Your task to perform on an android device: Clear all items from cart on newegg. Add logitech g pro to the cart on newegg Image 0: 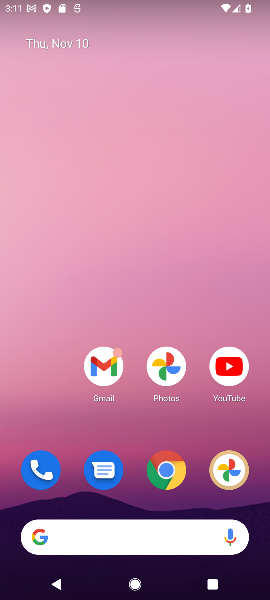
Step 0: click (166, 476)
Your task to perform on an android device: Clear all items from cart on newegg. Add logitech g pro to the cart on newegg Image 1: 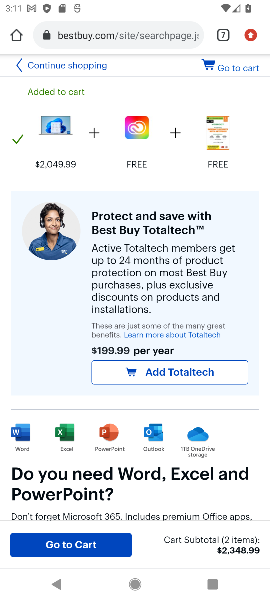
Step 1: click (225, 32)
Your task to perform on an android device: Clear all items from cart on newegg. Add logitech g pro to the cart on newegg Image 2: 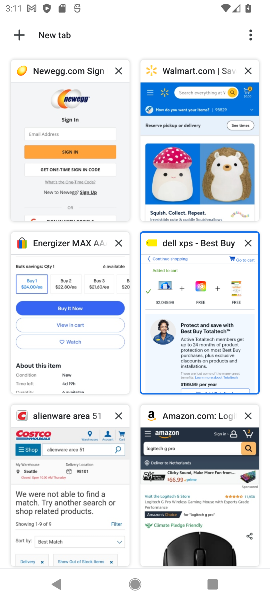
Step 2: click (69, 165)
Your task to perform on an android device: Clear all items from cart on newegg. Add logitech g pro to the cart on newegg Image 3: 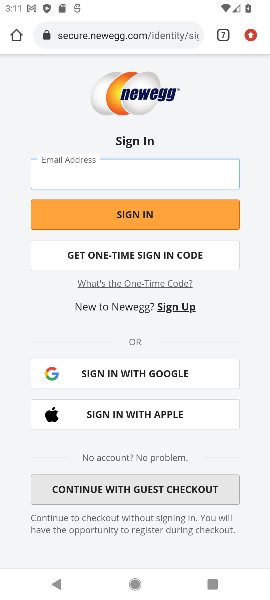
Step 3: press back button
Your task to perform on an android device: Clear all items from cart on newegg. Add logitech g pro to the cart on newegg Image 4: 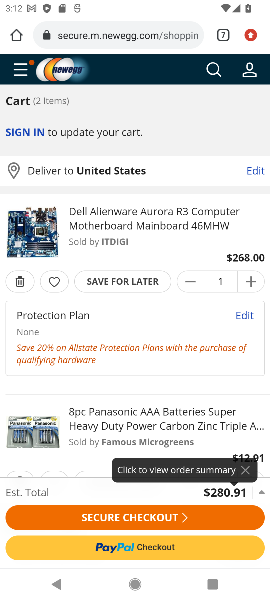
Step 4: click (17, 281)
Your task to perform on an android device: Clear all items from cart on newegg. Add logitech g pro to the cart on newegg Image 5: 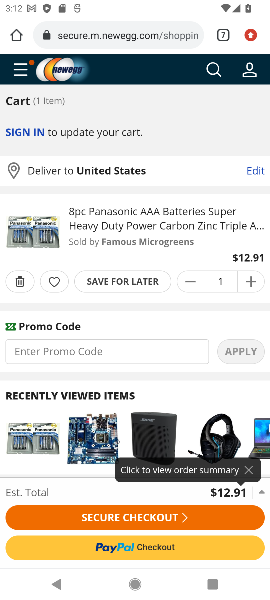
Step 5: click (20, 282)
Your task to perform on an android device: Clear all items from cart on newegg. Add logitech g pro to the cart on newegg Image 6: 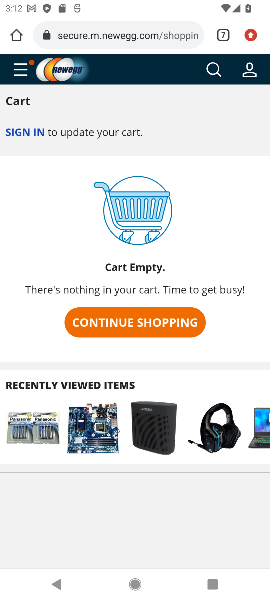
Step 6: click (215, 68)
Your task to perform on an android device: Clear all items from cart on newegg. Add logitech g pro to the cart on newegg Image 7: 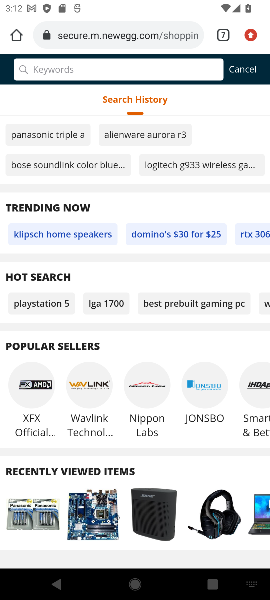
Step 7: type "logitech g pro"
Your task to perform on an android device: Clear all items from cart on newegg. Add logitech g pro to the cart on newegg Image 8: 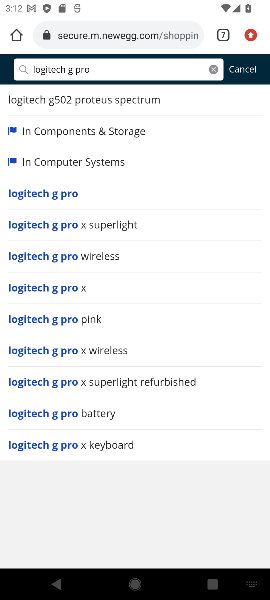
Step 8: click (52, 190)
Your task to perform on an android device: Clear all items from cart on newegg. Add logitech g pro to the cart on newegg Image 9: 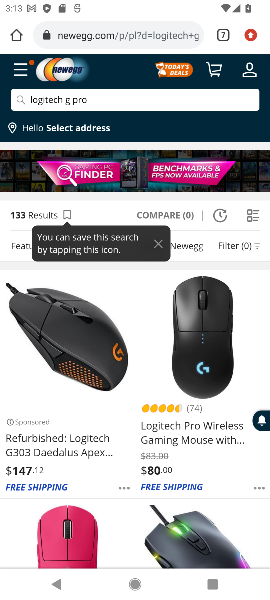
Step 9: click (186, 426)
Your task to perform on an android device: Clear all items from cart on newegg. Add logitech g pro to the cart on newegg Image 10: 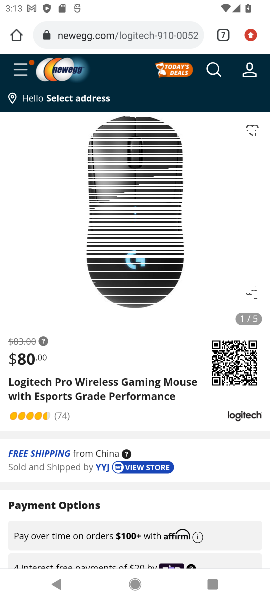
Step 10: drag from (191, 479) to (215, 218)
Your task to perform on an android device: Clear all items from cart on newegg. Add logitech g pro to the cart on newegg Image 11: 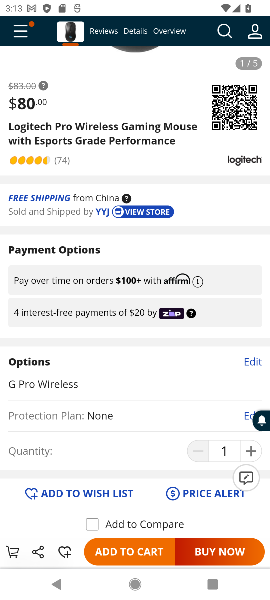
Step 11: click (126, 554)
Your task to perform on an android device: Clear all items from cart on newegg. Add logitech g pro to the cart on newegg Image 12: 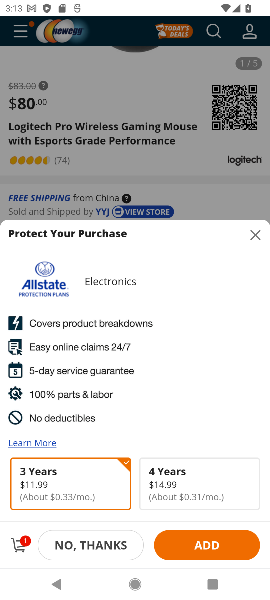
Step 12: task complete